Your task to perform on an android device: turn on location history Image 0: 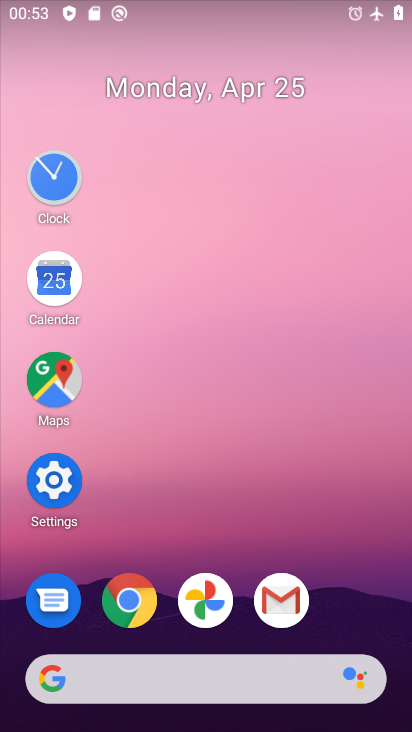
Step 0: click (49, 386)
Your task to perform on an android device: turn on location history Image 1: 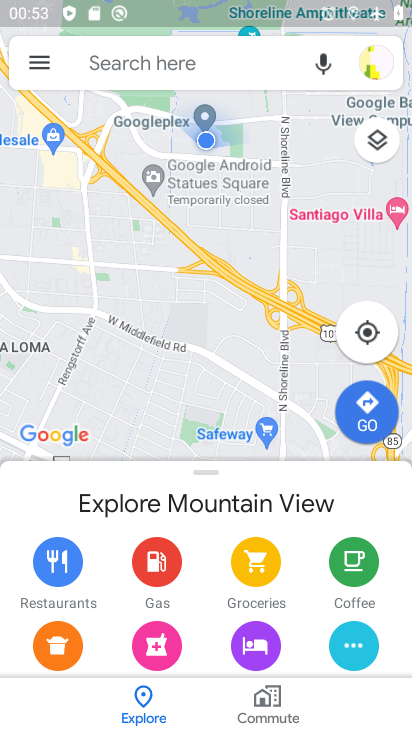
Step 1: click (38, 66)
Your task to perform on an android device: turn on location history Image 2: 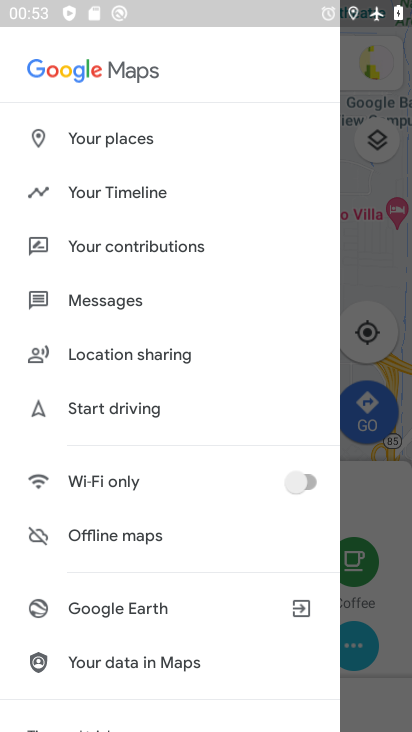
Step 2: click (103, 185)
Your task to perform on an android device: turn on location history Image 3: 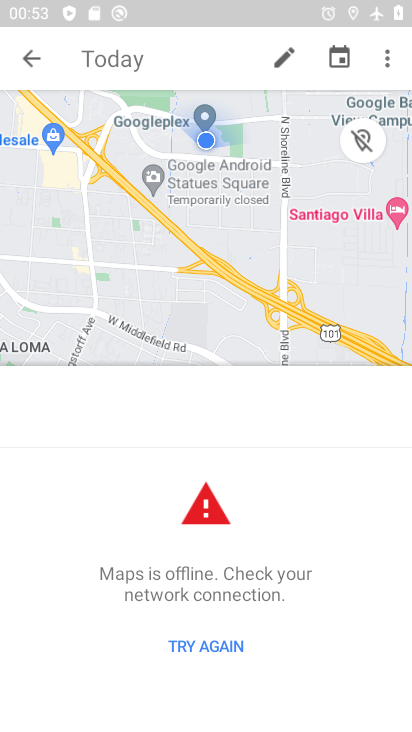
Step 3: click (386, 58)
Your task to perform on an android device: turn on location history Image 4: 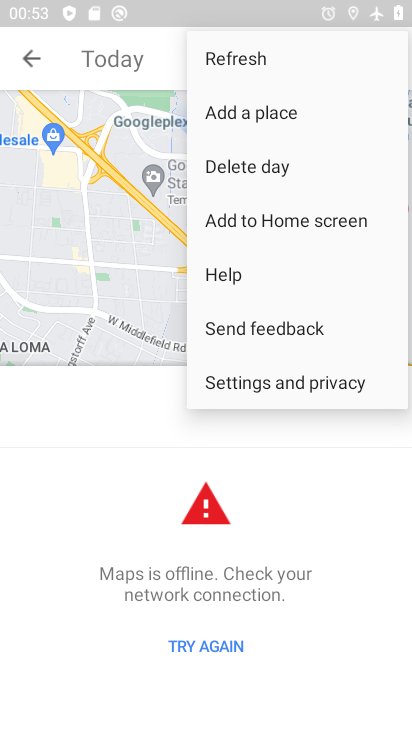
Step 4: click (304, 388)
Your task to perform on an android device: turn on location history Image 5: 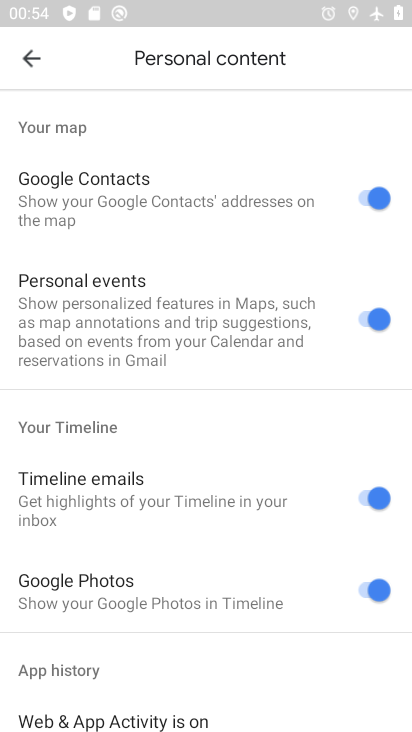
Step 5: drag from (236, 607) to (213, 239)
Your task to perform on an android device: turn on location history Image 6: 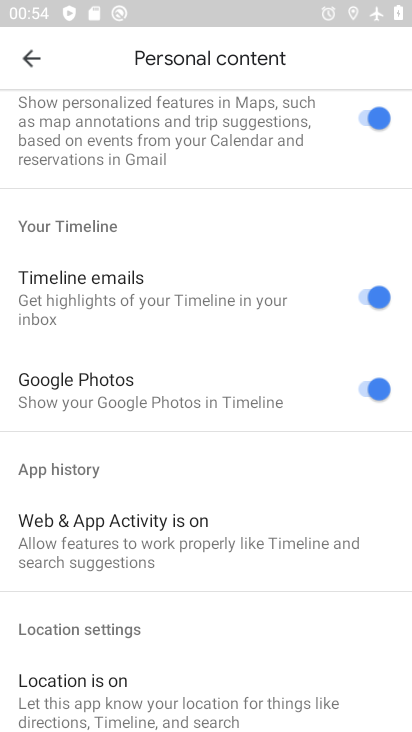
Step 6: drag from (189, 601) to (189, 324)
Your task to perform on an android device: turn on location history Image 7: 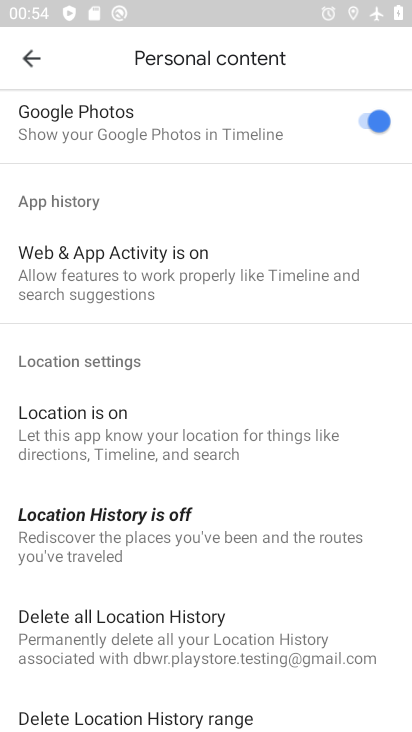
Step 7: click (120, 514)
Your task to perform on an android device: turn on location history Image 8: 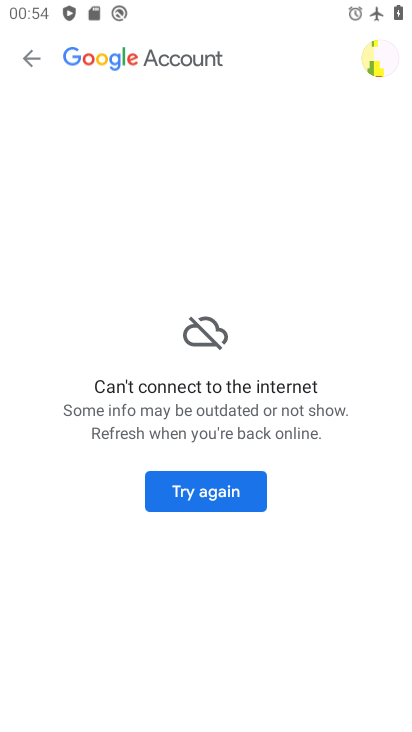
Step 8: task complete